Your task to perform on an android device: Open settings Image 0: 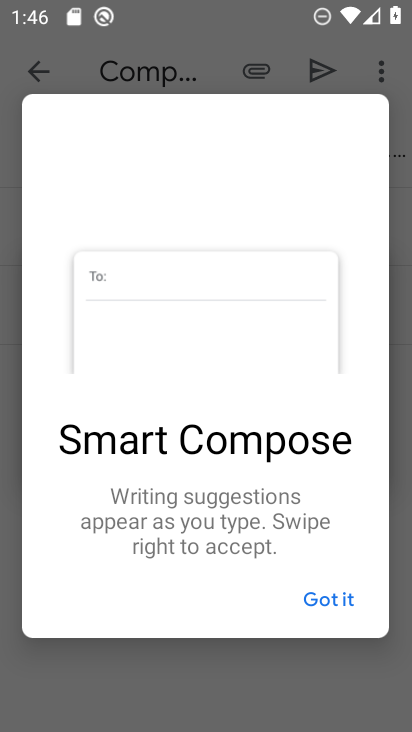
Step 0: click (331, 585)
Your task to perform on an android device: Open settings Image 1: 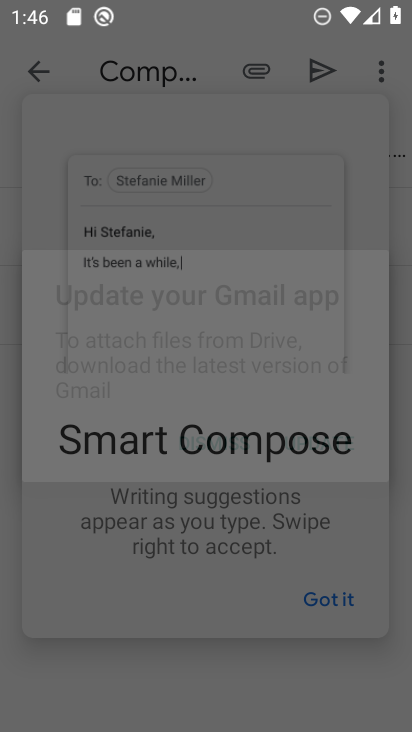
Step 1: click (339, 593)
Your task to perform on an android device: Open settings Image 2: 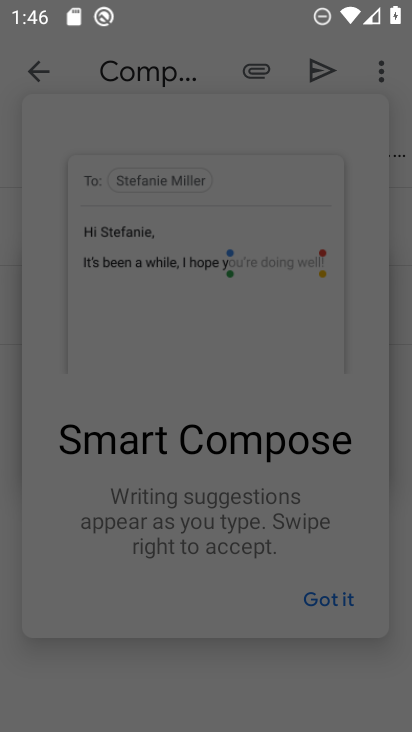
Step 2: click (330, 598)
Your task to perform on an android device: Open settings Image 3: 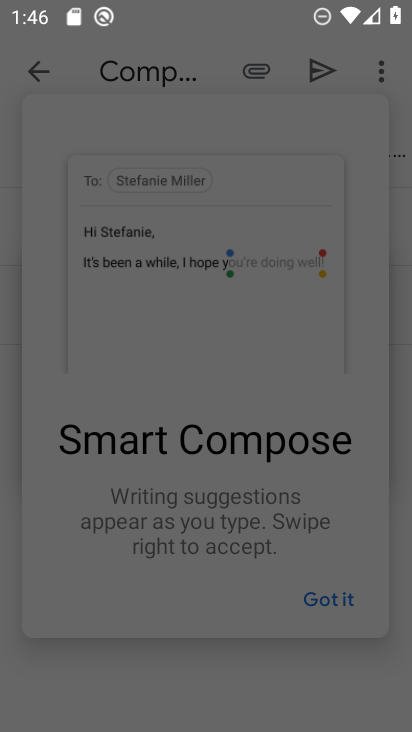
Step 3: click (331, 597)
Your task to perform on an android device: Open settings Image 4: 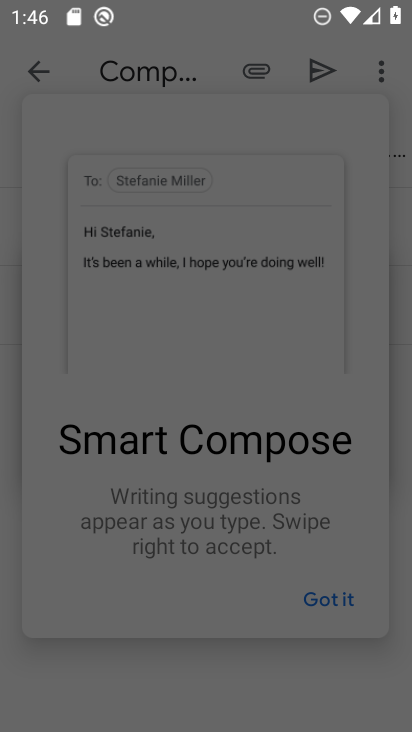
Step 4: click (338, 588)
Your task to perform on an android device: Open settings Image 5: 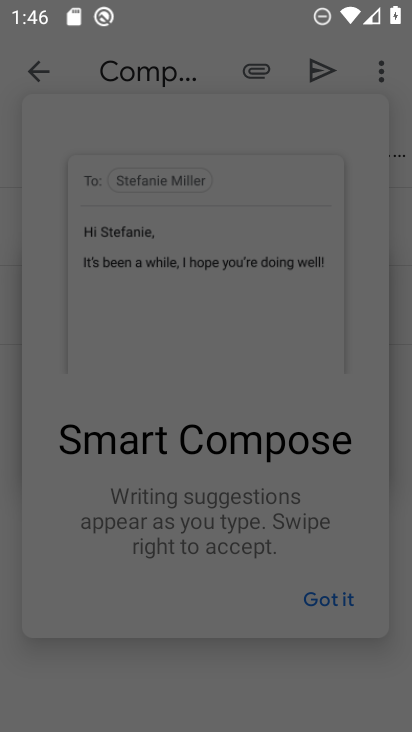
Step 5: click (341, 593)
Your task to perform on an android device: Open settings Image 6: 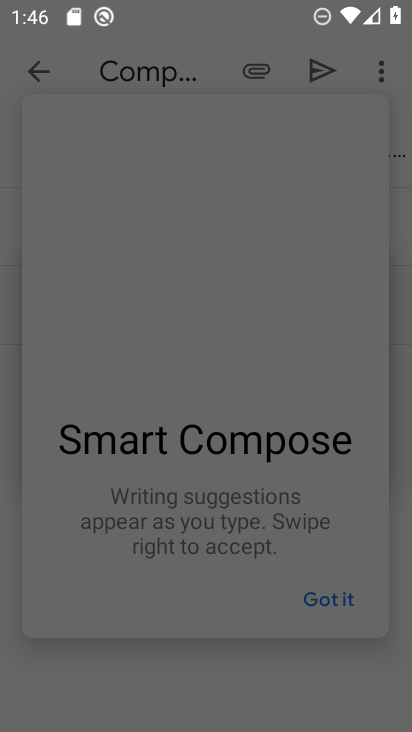
Step 6: click (341, 593)
Your task to perform on an android device: Open settings Image 7: 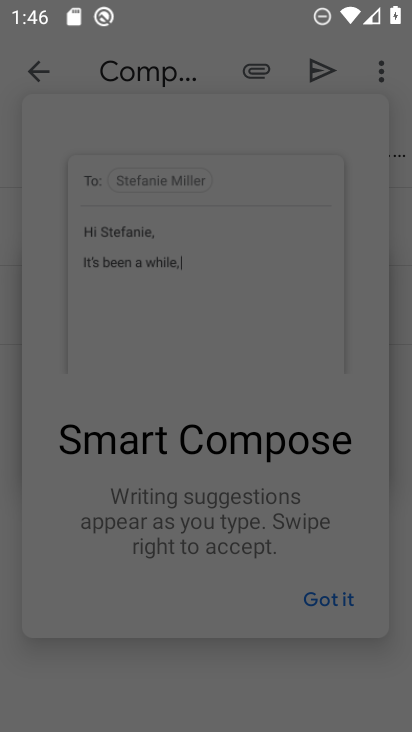
Step 7: click (341, 593)
Your task to perform on an android device: Open settings Image 8: 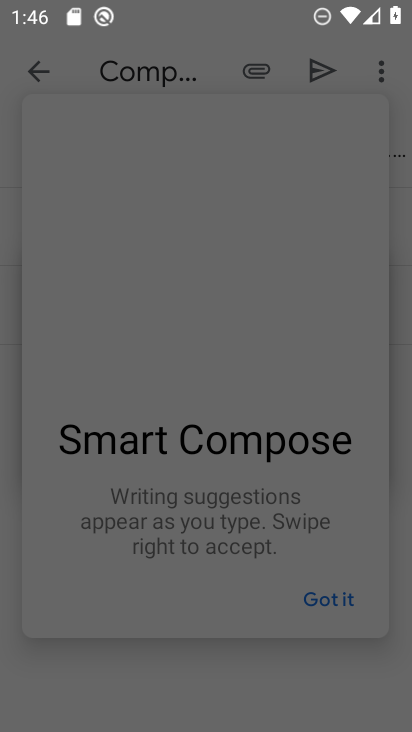
Step 8: click (324, 595)
Your task to perform on an android device: Open settings Image 9: 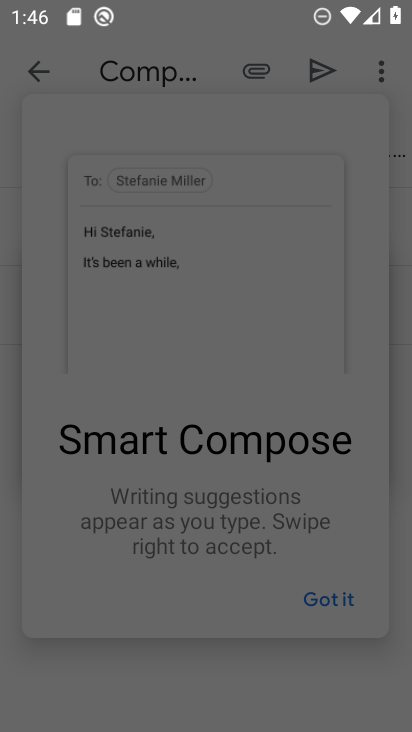
Step 9: press back button
Your task to perform on an android device: Open settings Image 10: 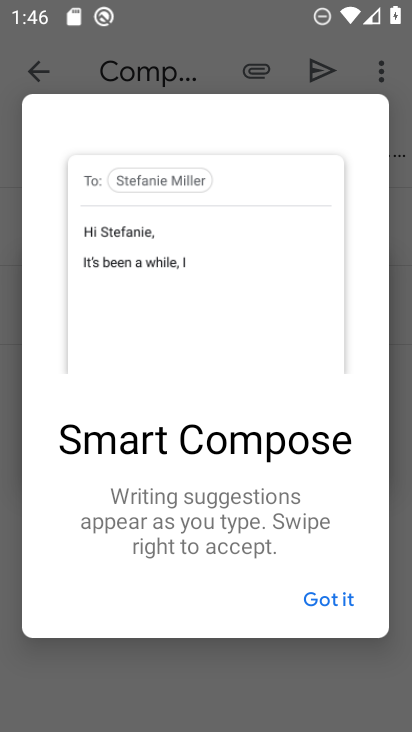
Step 10: press back button
Your task to perform on an android device: Open settings Image 11: 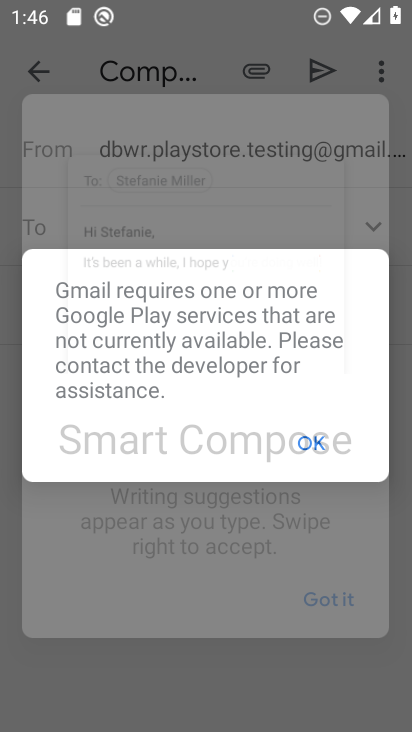
Step 11: press back button
Your task to perform on an android device: Open settings Image 12: 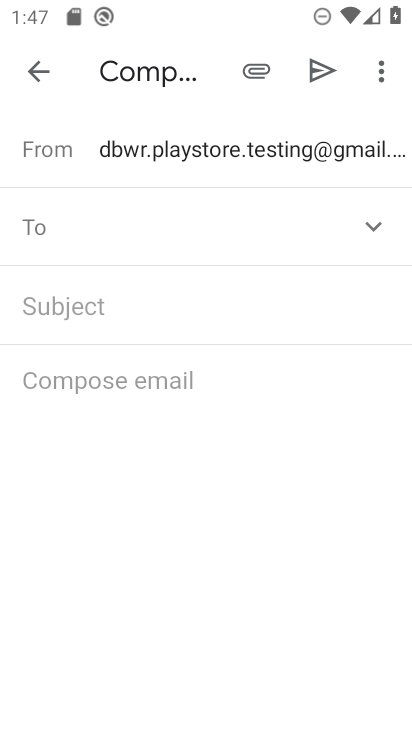
Step 12: click (30, 71)
Your task to perform on an android device: Open settings Image 13: 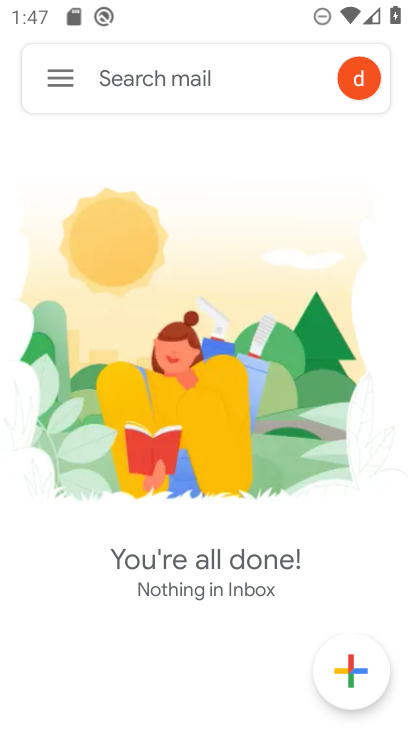
Step 13: click (68, 88)
Your task to perform on an android device: Open settings Image 14: 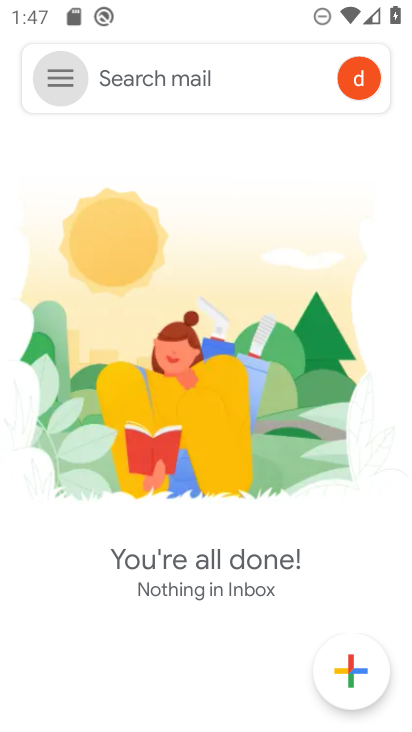
Step 14: click (68, 88)
Your task to perform on an android device: Open settings Image 15: 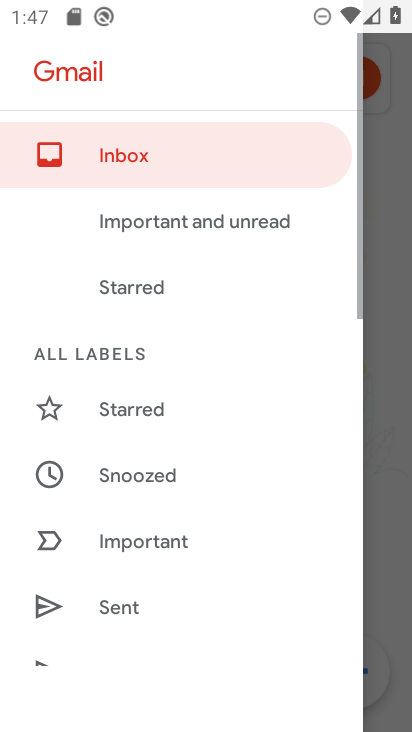
Step 15: press home button
Your task to perform on an android device: Open settings Image 16: 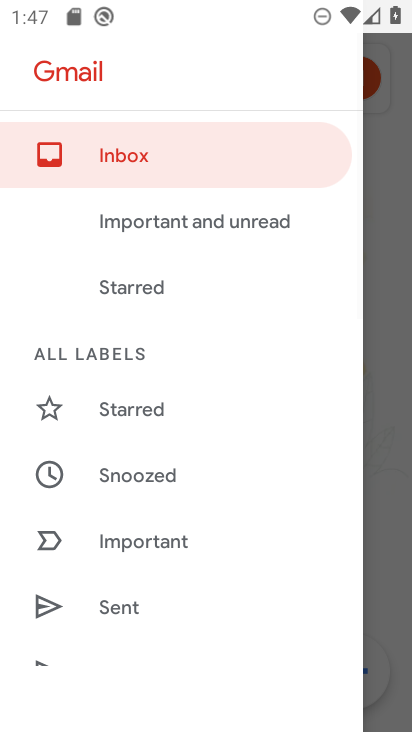
Step 16: press home button
Your task to perform on an android device: Open settings Image 17: 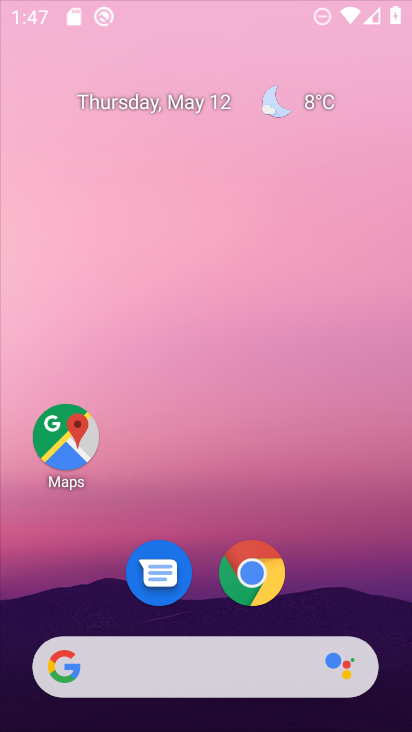
Step 17: press home button
Your task to perform on an android device: Open settings Image 18: 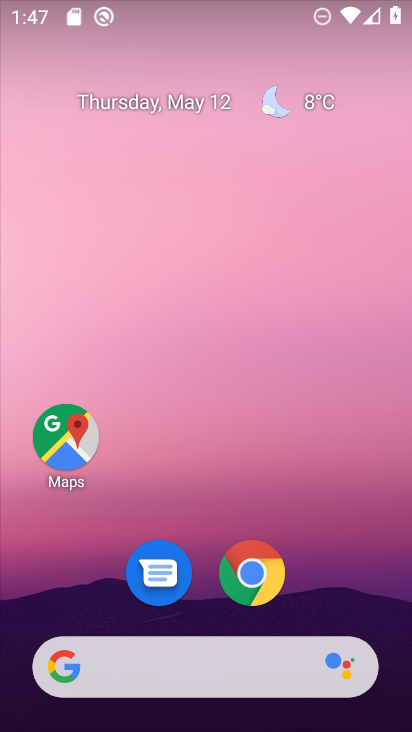
Step 18: drag from (407, 591) to (194, 194)
Your task to perform on an android device: Open settings Image 19: 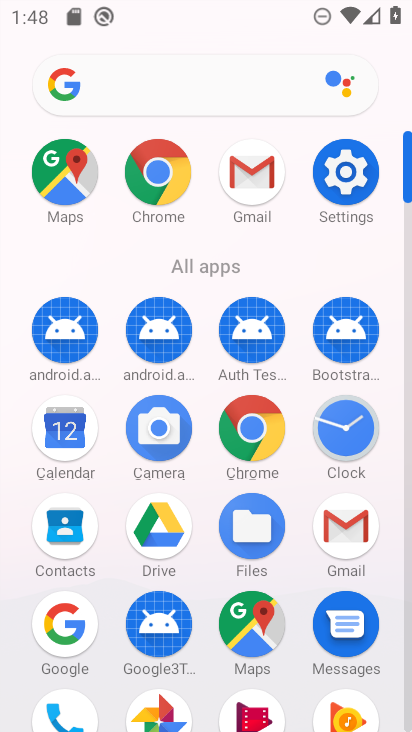
Step 19: click (337, 176)
Your task to perform on an android device: Open settings Image 20: 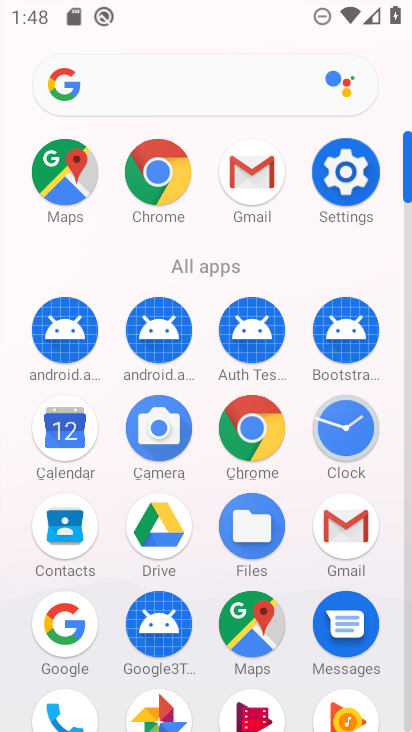
Step 20: click (337, 176)
Your task to perform on an android device: Open settings Image 21: 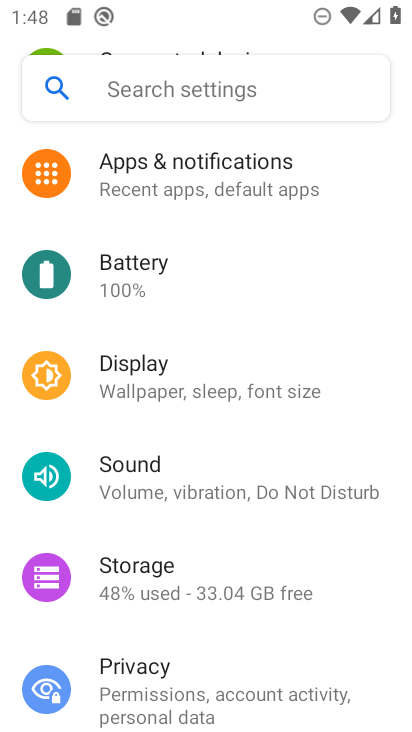
Step 21: task complete